Your task to perform on an android device: Open sound settings Image 0: 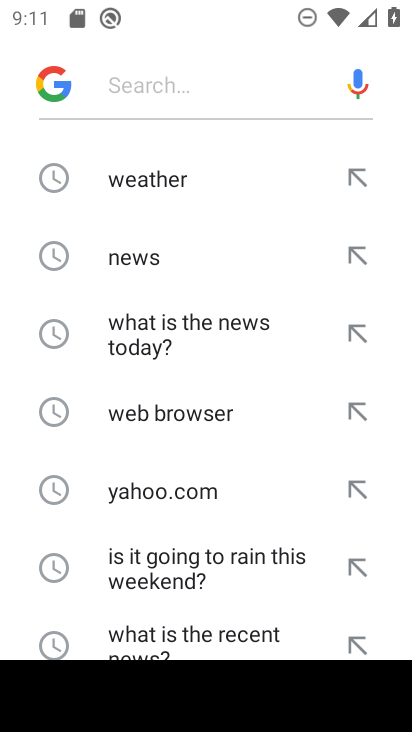
Step 0: press back button
Your task to perform on an android device: Open sound settings Image 1: 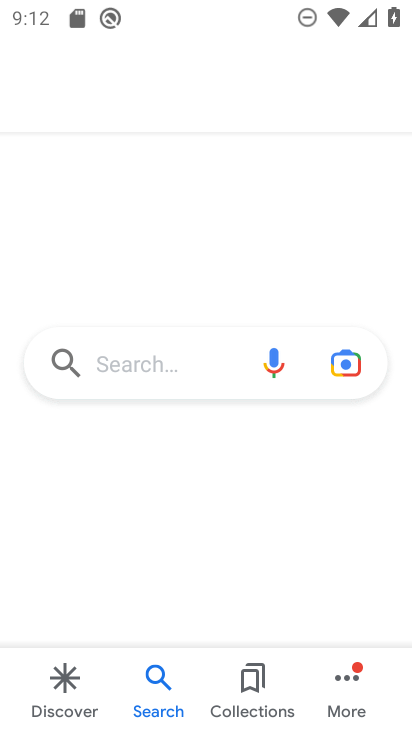
Step 1: press home button
Your task to perform on an android device: Open sound settings Image 2: 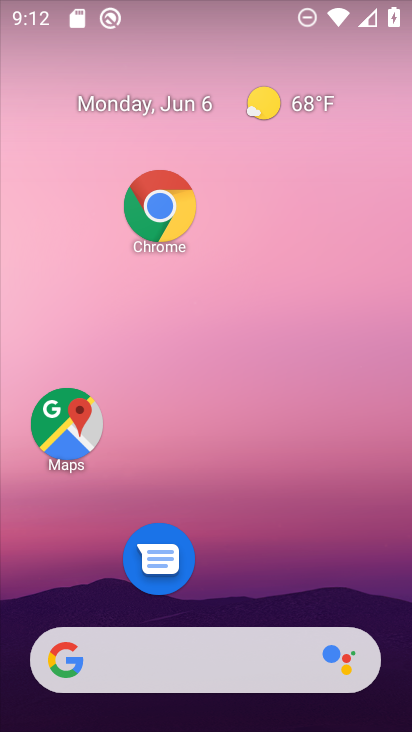
Step 2: drag from (289, 597) to (258, 81)
Your task to perform on an android device: Open sound settings Image 3: 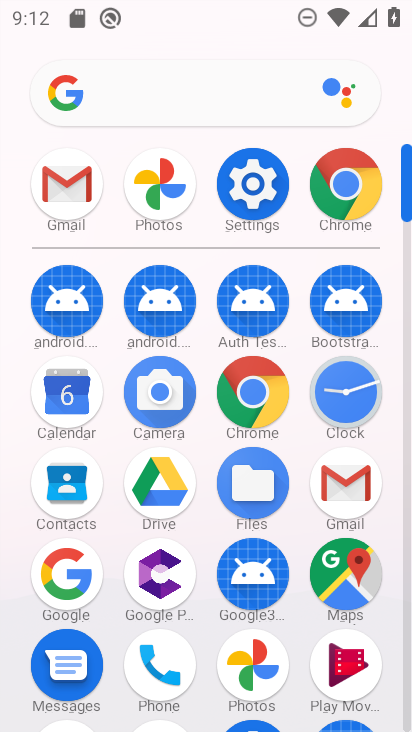
Step 3: click (252, 188)
Your task to perform on an android device: Open sound settings Image 4: 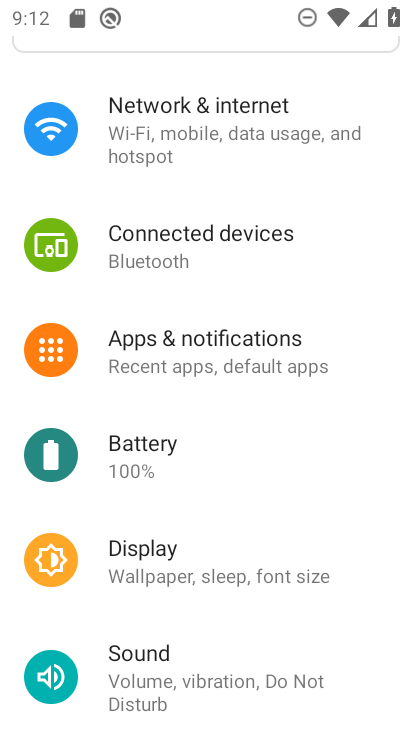
Step 4: click (150, 669)
Your task to perform on an android device: Open sound settings Image 5: 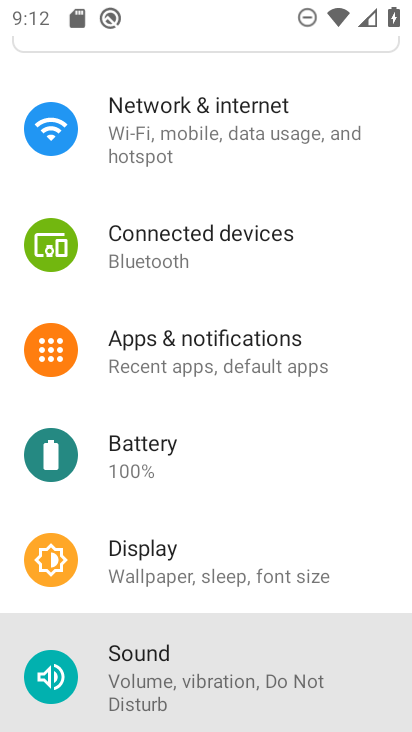
Step 5: click (163, 671)
Your task to perform on an android device: Open sound settings Image 6: 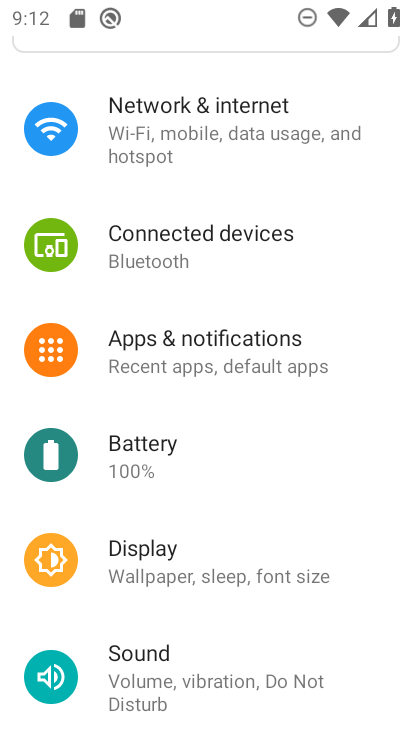
Step 6: click (170, 686)
Your task to perform on an android device: Open sound settings Image 7: 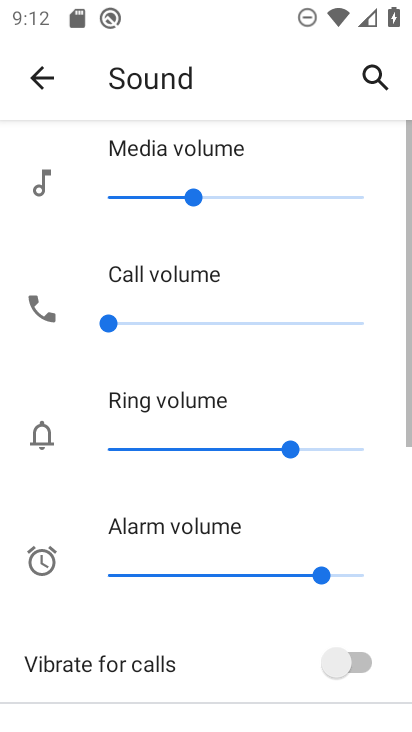
Step 7: click (242, 232)
Your task to perform on an android device: Open sound settings Image 8: 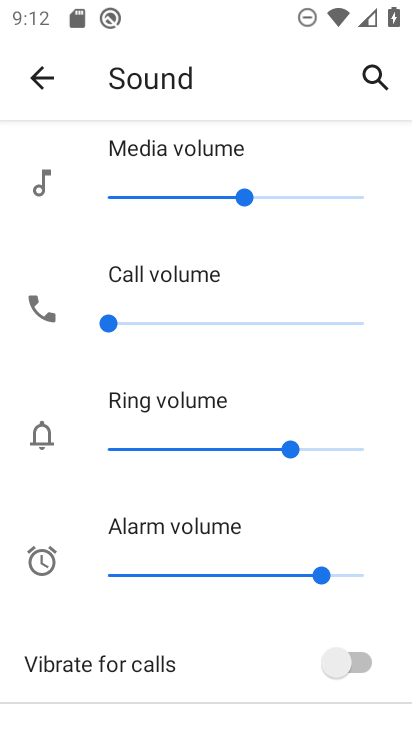
Step 8: task complete